Your task to perform on an android device: Go to network settings Image 0: 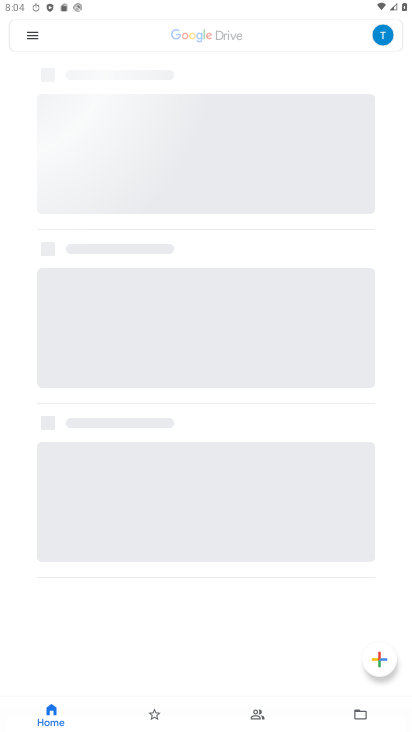
Step 0: click (268, 214)
Your task to perform on an android device: Go to network settings Image 1: 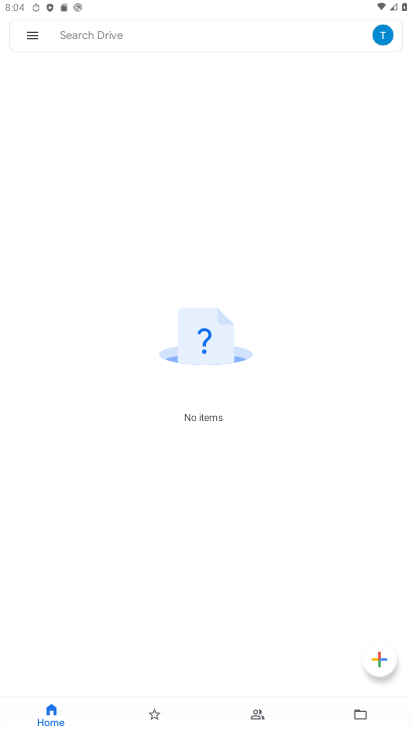
Step 1: press back button
Your task to perform on an android device: Go to network settings Image 2: 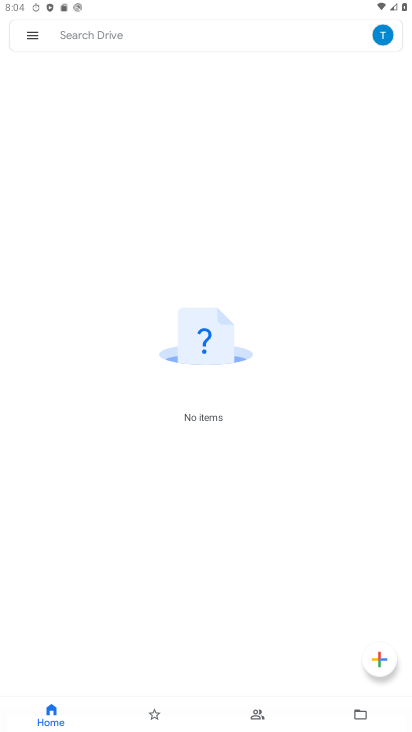
Step 2: press back button
Your task to perform on an android device: Go to network settings Image 3: 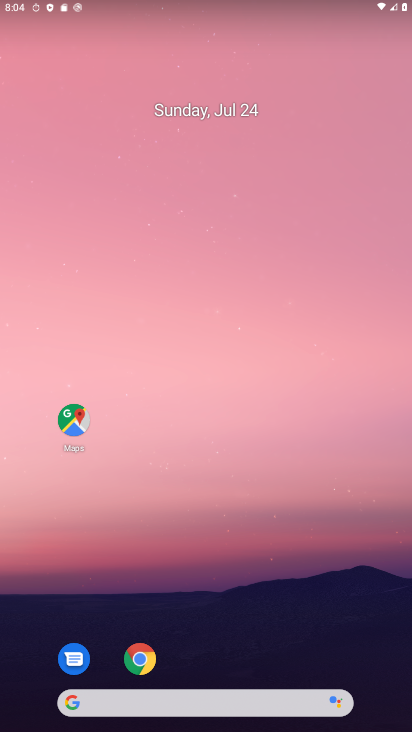
Step 3: drag from (255, 700) to (171, 124)
Your task to perform on an android device: Go to network settings Image 4: 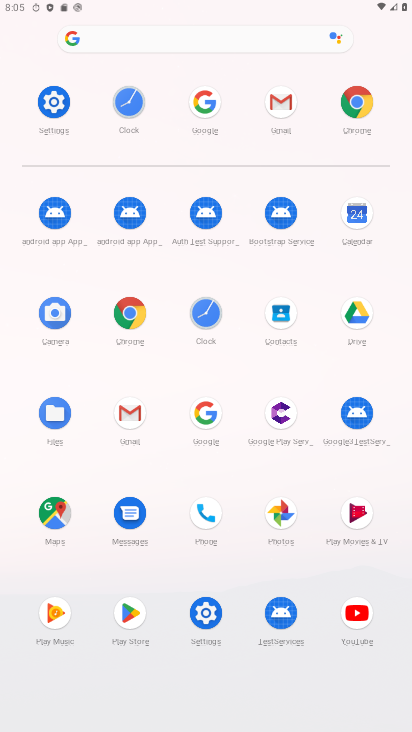
Step 4: click (205, 606)
Your task to perform on an android device: Go to network settings Image 5: 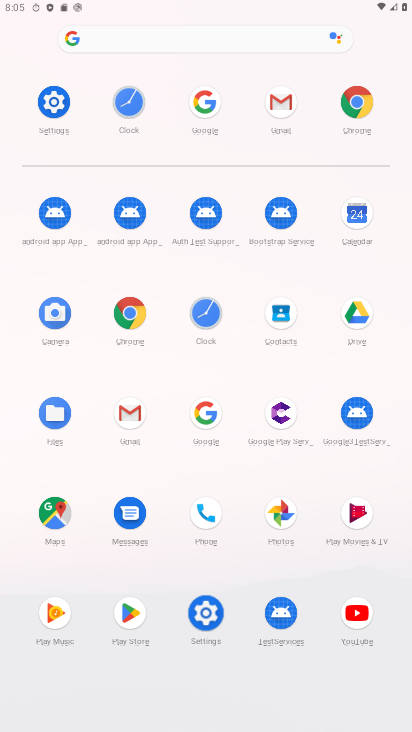
Step 5: click (205, 605)
Your task to perform on an android device: Go to network settings Image 6: 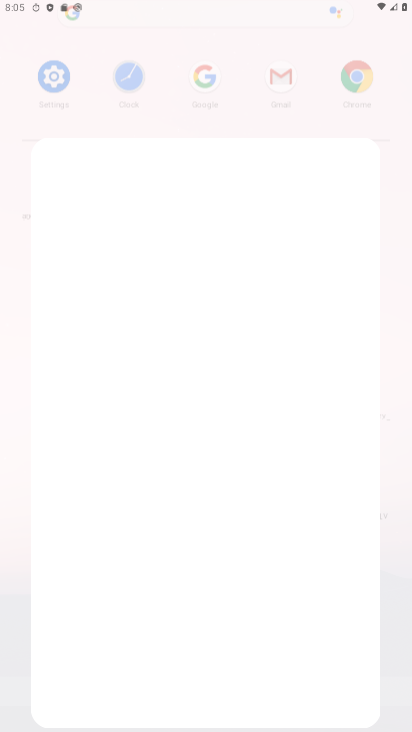
Step 6: click (203, 603)
Your task to perform on an android device: Go to network settings Image 7: 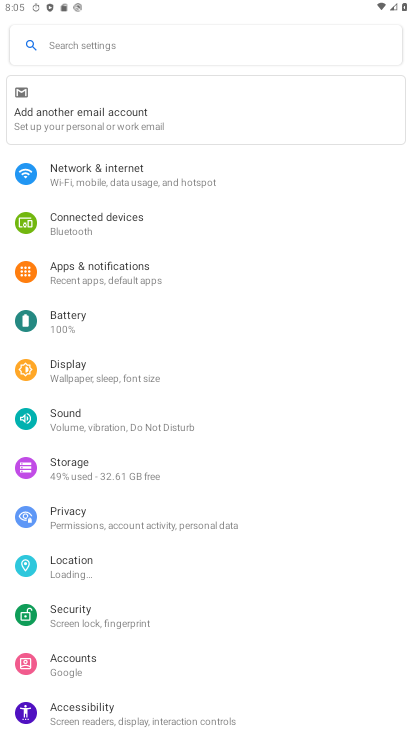
Step 7: click (91, 178)
Your task to perform on an android device: Go to network settings Image 8: 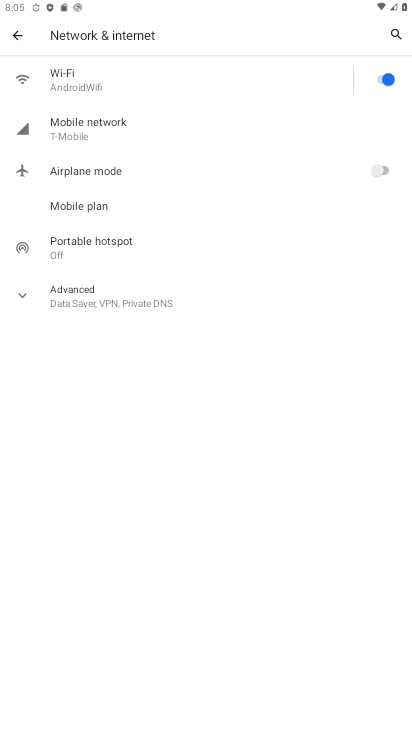
Step 8: click (60, 130)
Your task to perform on an android device: Go to network settings Image 9: 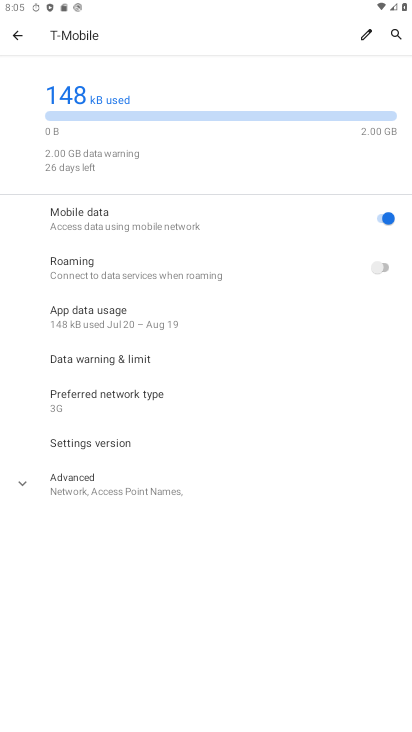
Step 9: task complete